Your task to perform on an android device: Open ESPN.com Image 0: 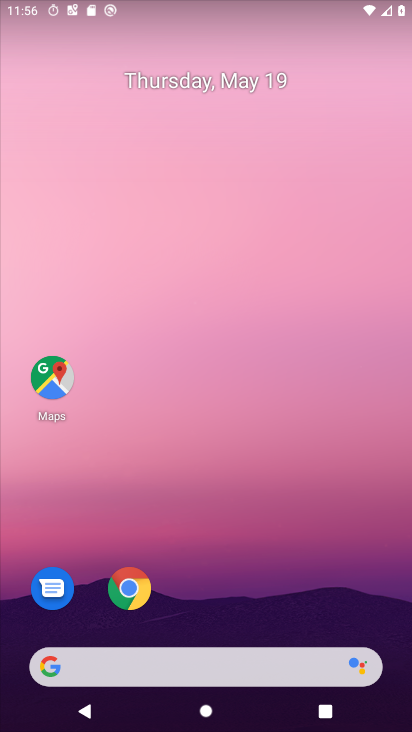
Step 0: press home button
Your task to perform on an android device: Open ESPN.com Image 1: 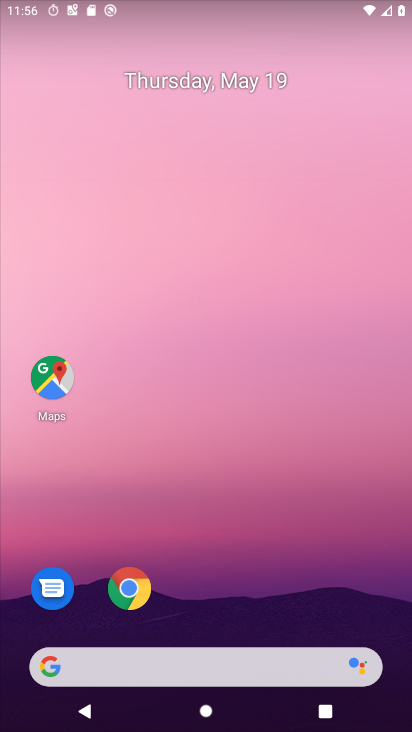
Step 1: click (128, 601)
Your task to perform on an android device: Open ESPN.com Image 2: 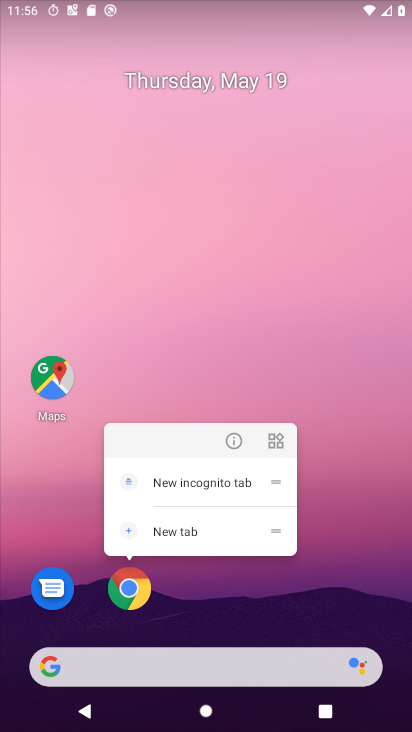
Step 2: click (136, 590)
Your task to perform on an android device: Open ESPN.com Image 3: 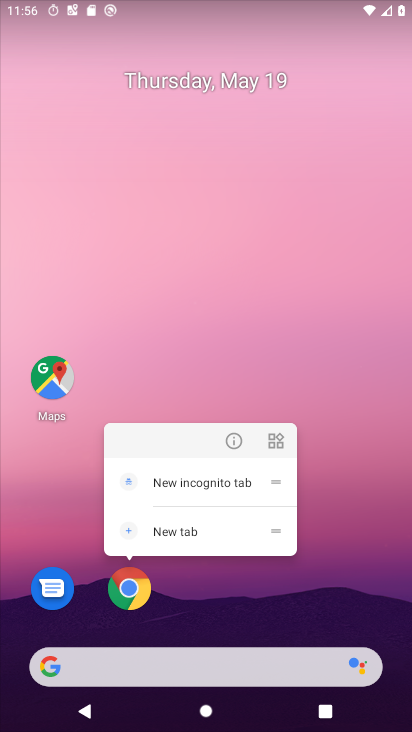
Step 3: click (129, 595)
Your task to perform on an android device: Open ESPN.com Image 4: 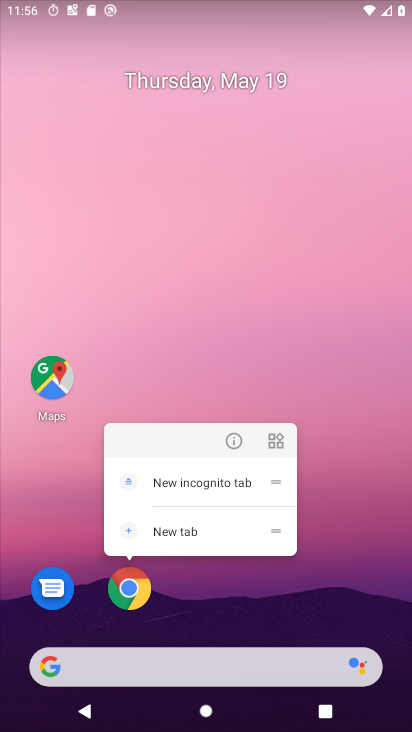
Step 4: click (126, 595)
Your task to perform on an android device: Open ESPN.com Image 5: 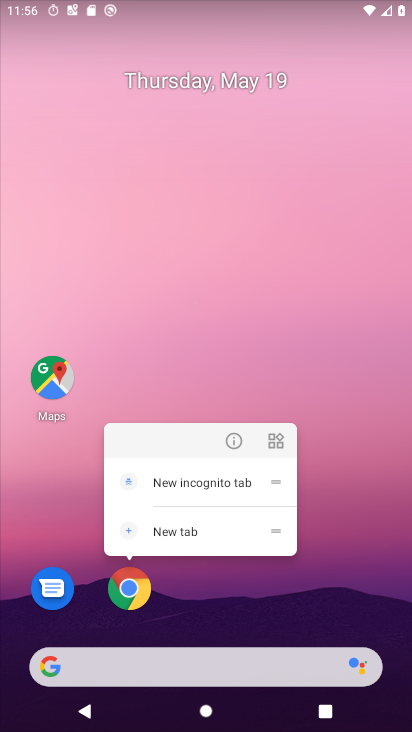
Step 5: click (122, 590)
Your task to perform on an android device: Open ESPN.com Image 6: 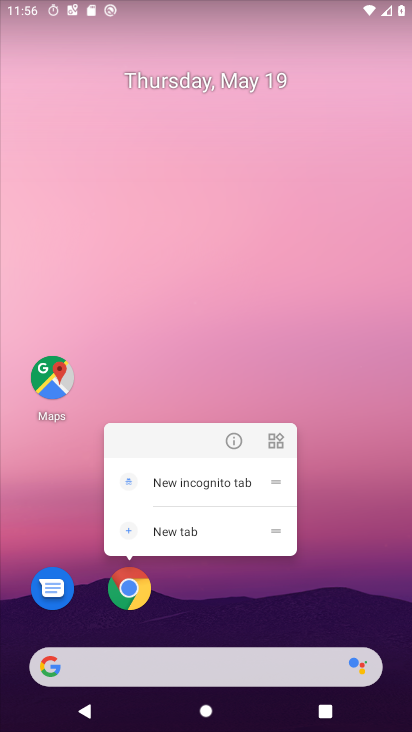
Step 6: click (128, 601)
Your task to perform on an android device: Open ESPN.com Image 7: 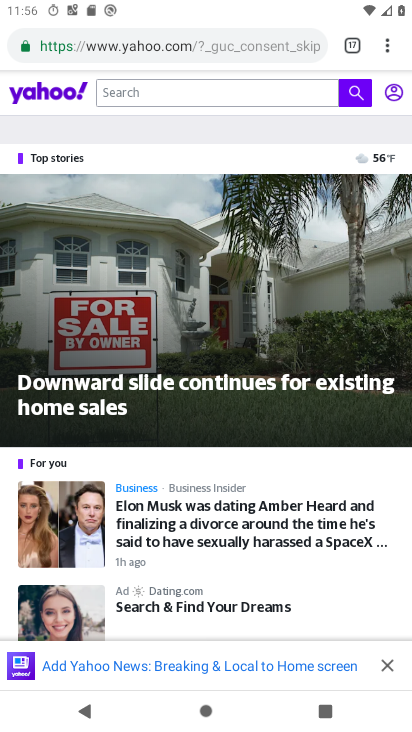
Step 7: drag from (380, 54) to (286, 88)
Your task to perform on an android device: Open ESPN.com Image 8: 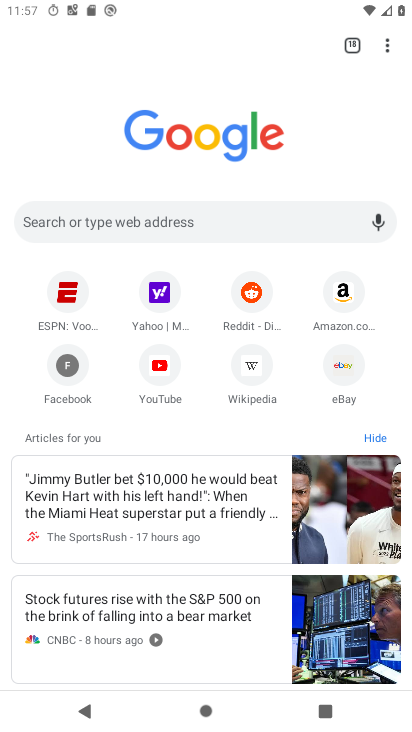
Step 8: click (65, 300)
Your task to perform on an android device: Open ESPN.com Image 9: 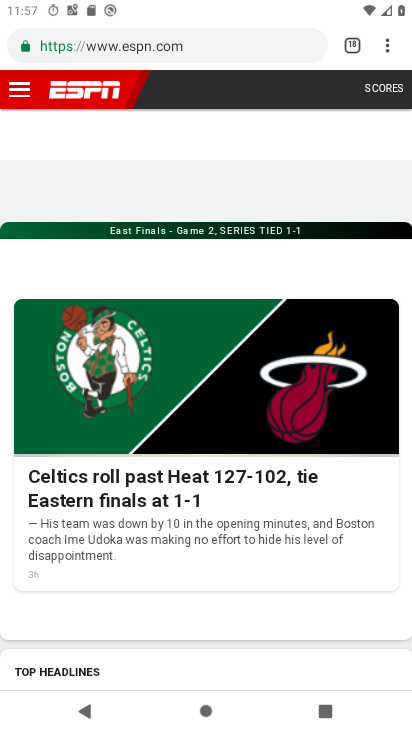
Step 9: task complete